Your task to perform on an android device: open chrome privacy settings Image 0: 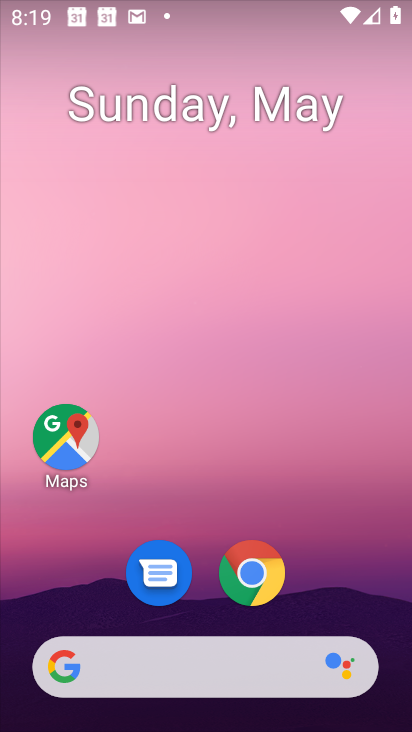
Step 0: click (250, 563)
Your task to perform on an android device: open chrome privacy settings Image 1: 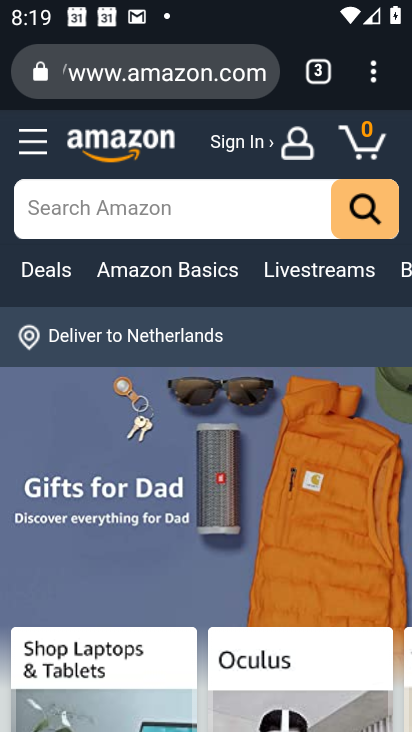
Step 1: click (372, 75)
Your task to perform on an android device: open chrome privacy settings Image 2: 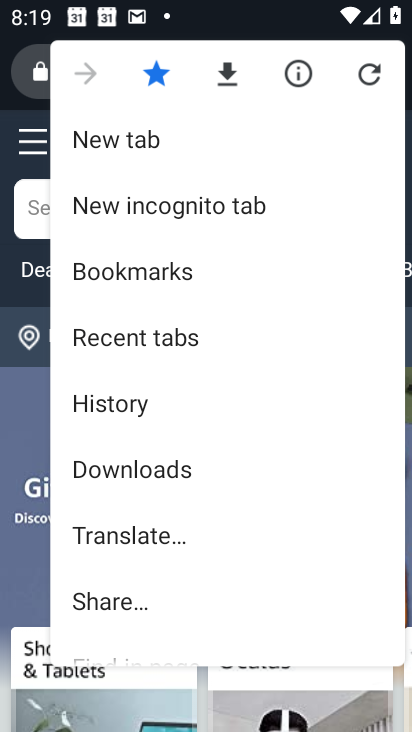
Step 2: drag from (214, 559) to (235, 134)
Your task to perform on an android device: open chrome privacy settings Image 3: 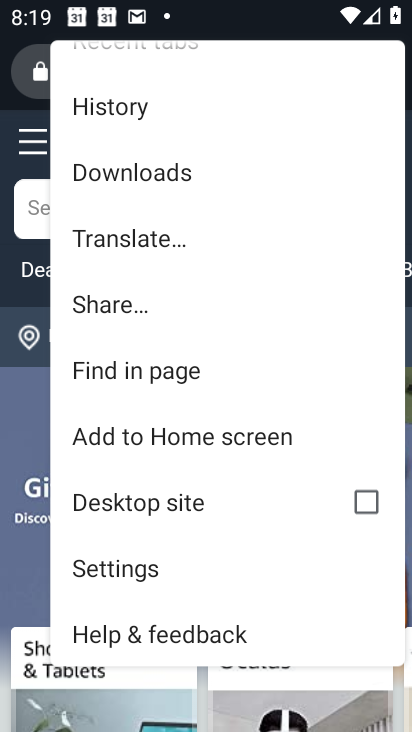
Step 3: click (166, 553)
Your task to perform on an android device: open chrome privacy settings Image 4: 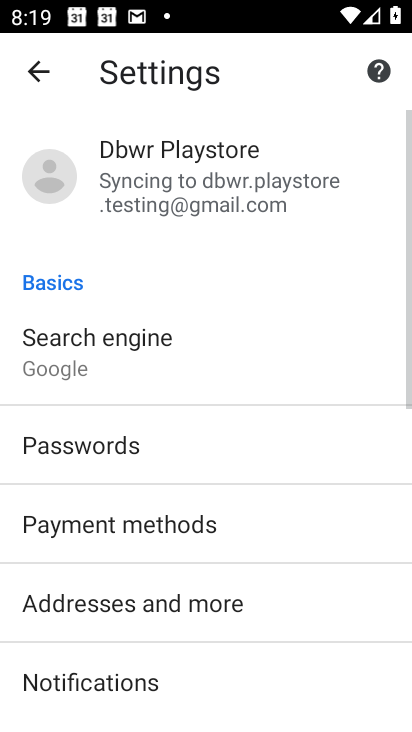
Step 4: drag from (204, 534) to (216, 171)
Your task to perform on an android device: open chrome privacy settings Image 5: 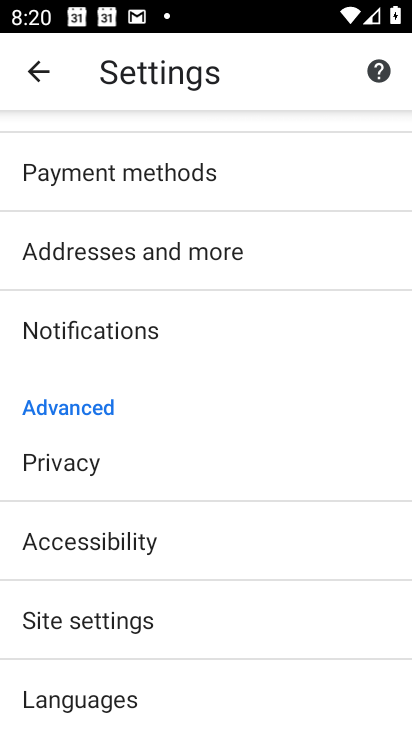
Step 5: click (194, 475)
Your task to perform on an android device: open chrome privacy settings Image 6: 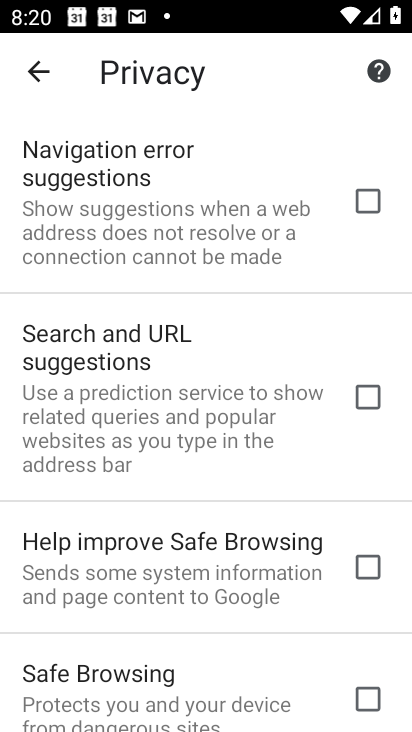
Step 6: task complete